Your task to perform on an android device: Open display settings Image 0: 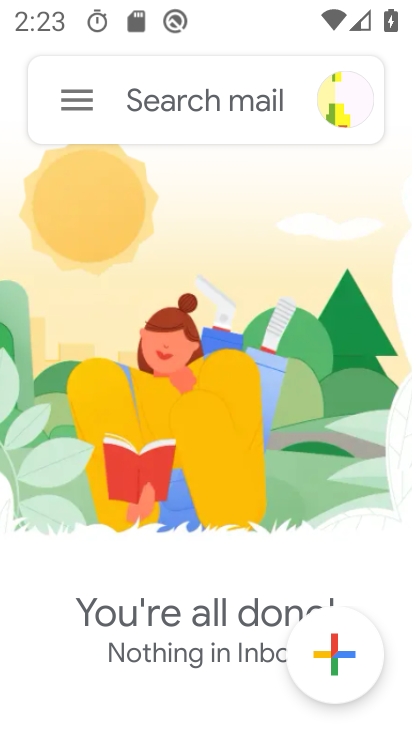
Step 0: press home button
Your task to perform on an android device: Open display settings Image 1: 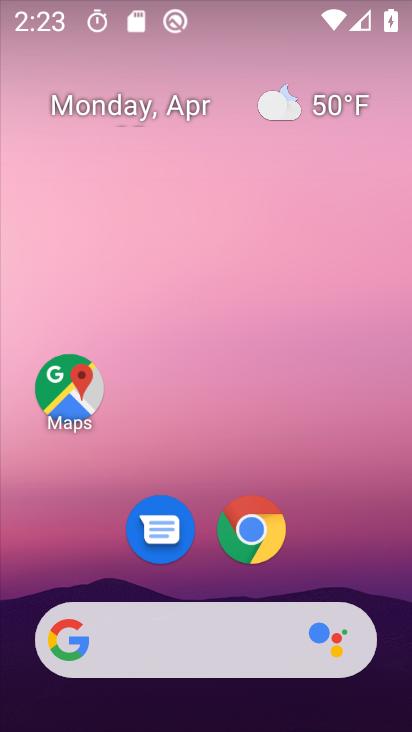
Step 1: click (375, 171)
Your task to perform on an android device: Open display settings Image 2: 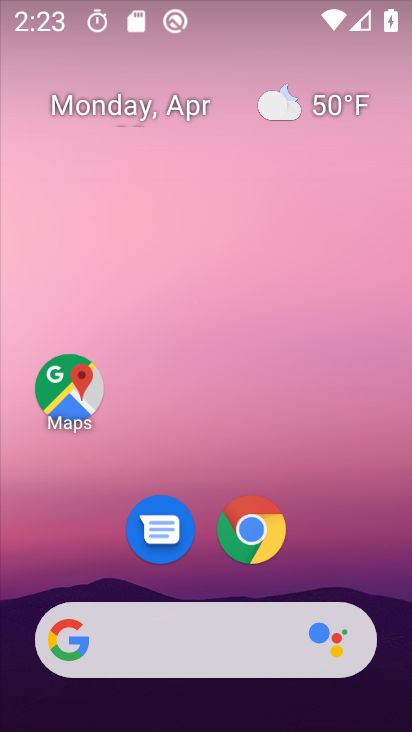
Step 2: drag from (385, 306) to (385, 148)
Your task to perform on an android device: Open display settings Image 3: 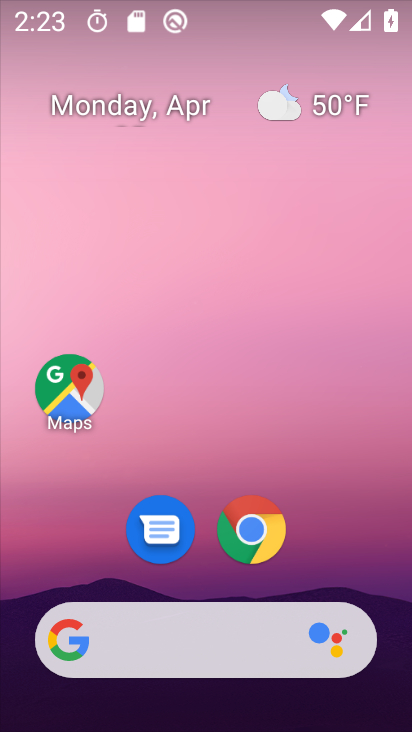
Step 3: drag from (403, 635) to (329, 90)
Your task to perform on an android device: Open display settings Image 4: 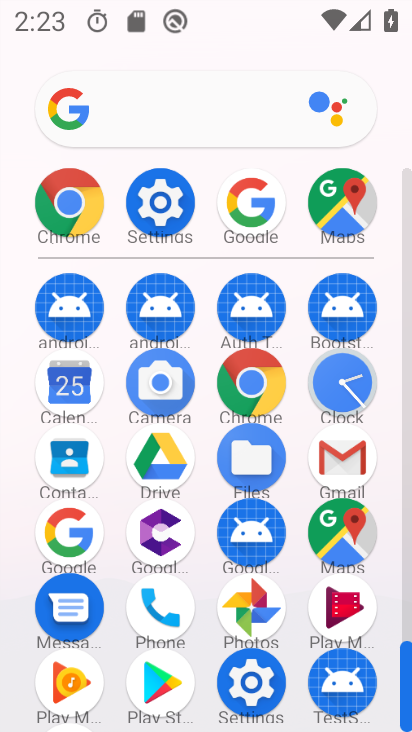
Step 4: click (155, 206)
Your task to perform on an android device: Open display settings Image 5: 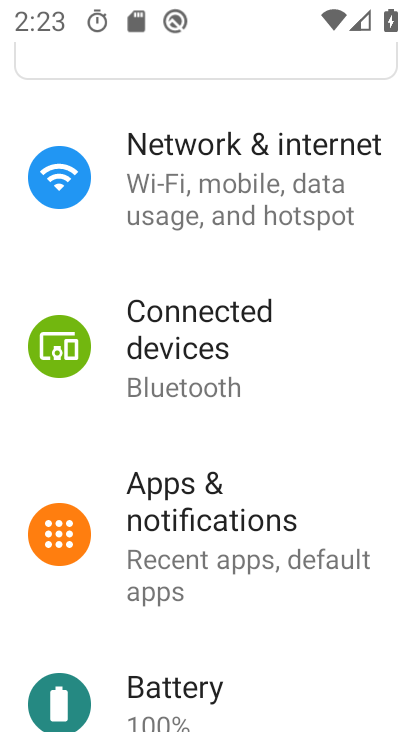
Step 5: drag from (341, 696) to (314, 289)
Your task to perform on an android device: Open display settings Image 6: 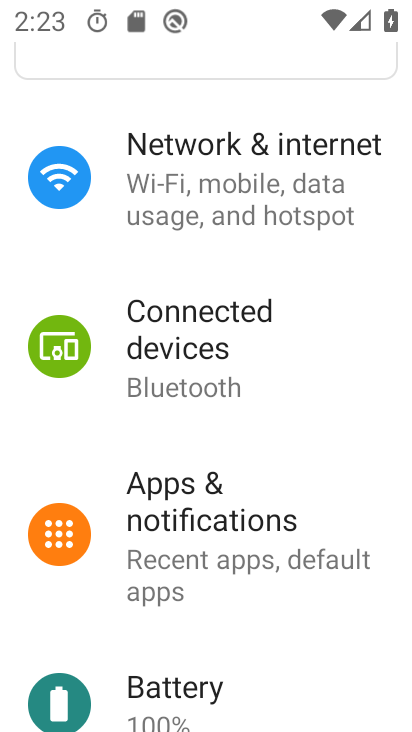
Step 6: drag from (324, 379) to (330, 266)
Your task to perform on an android device: Open display settings Image 7: 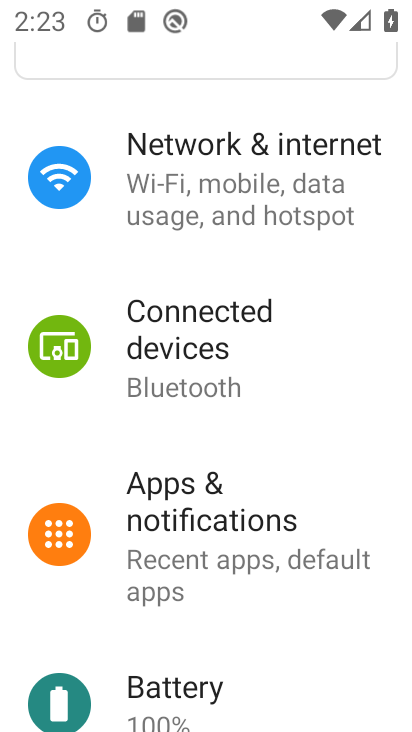
Step 7: drag from (325, 630) to (328, 302)
Your task to perform on an android device: Open display settings Image 8: 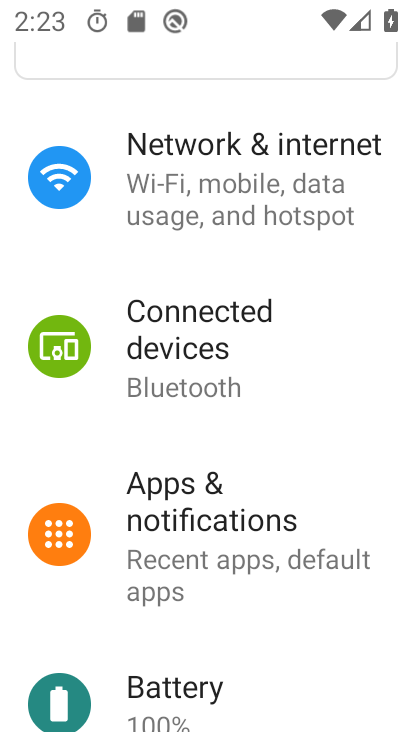
Step 8: drag from (386, 343) to (388, 289)
Your task to perform on an android device: Open display settings Image 9: 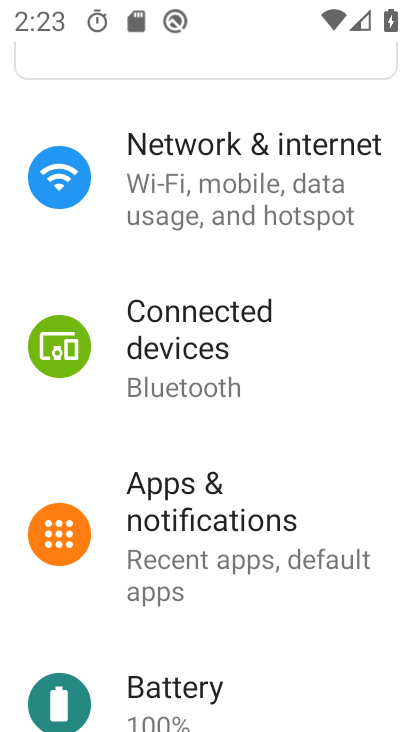
Step 9: drag from (342, 703) to (313, 190)
Your task to perform on an android device: Open display settings Image 10: 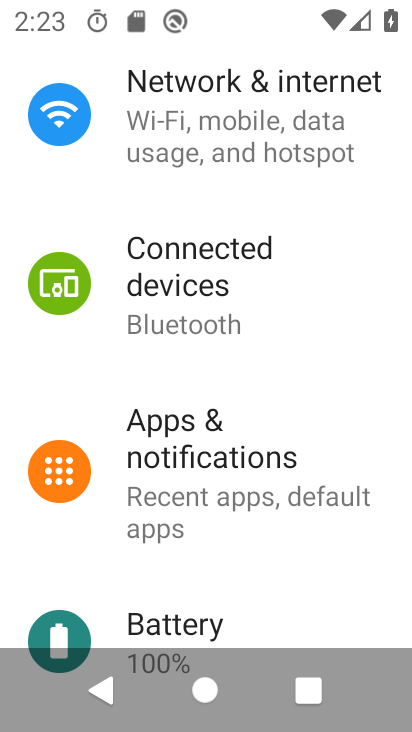
Step 10: drag from (332, 496) to (344, 78)
Your task to perform on an android device: Open display settings Image 11: 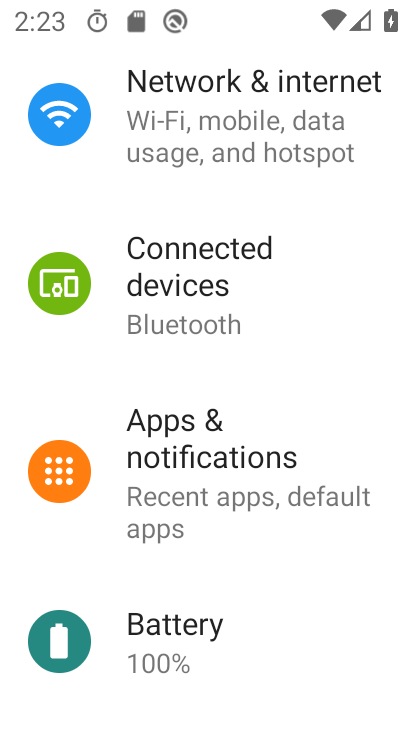
Step 11: drag from (311, 376) to (310, 314)
Your task to perform on an android device: Open display settings Image 12: 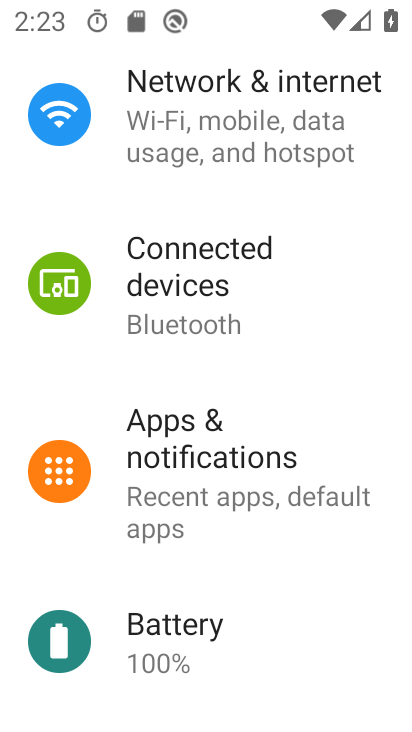
Step 12: drag from (340, 575) to (310, 323)
Your task to perform on an android device: Open display settings Image 13: 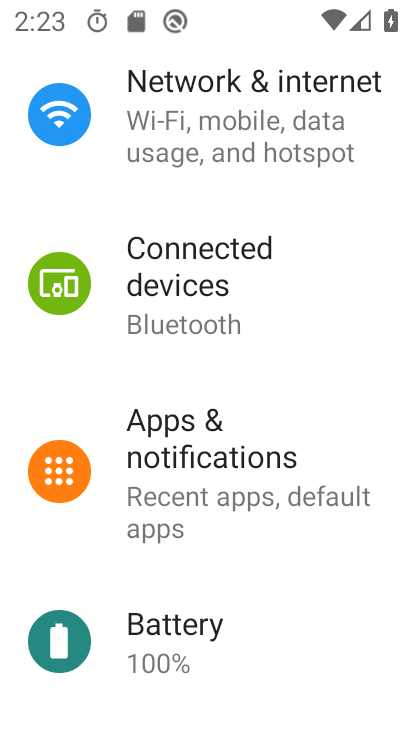
Step 13: drag from (327, 434) to (327, 301)
Your task to perform on an android device: Open display settings Image 14: 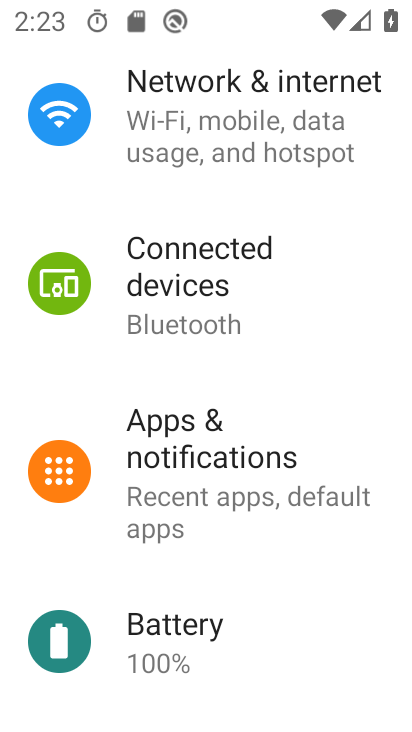
Step 14: click (324, 240)
Your task to perform on an android device: Open display settings Image 15: 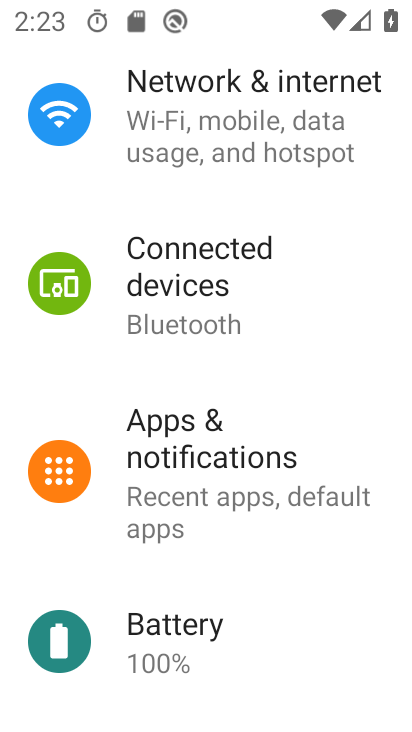
Step 15: drag from (352, 667) to (356, 250)
Your task to perform on an android device: Open display settings Image 16: 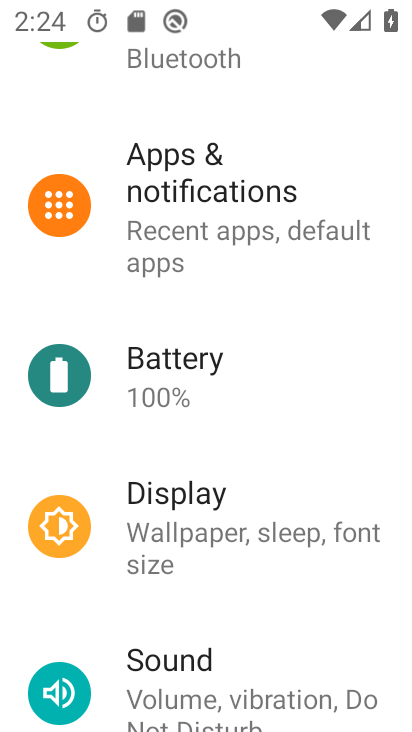
Step 16: drag from (311, 665) to (334, 261)
Your task to perform on an android device: Open display settings Image 17: 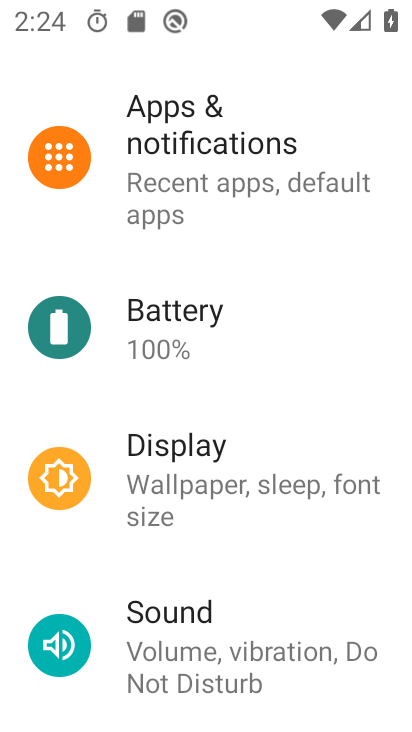
Step 17: click (157, 465)
Your task to perform on an android device: Open display settings Image 18: 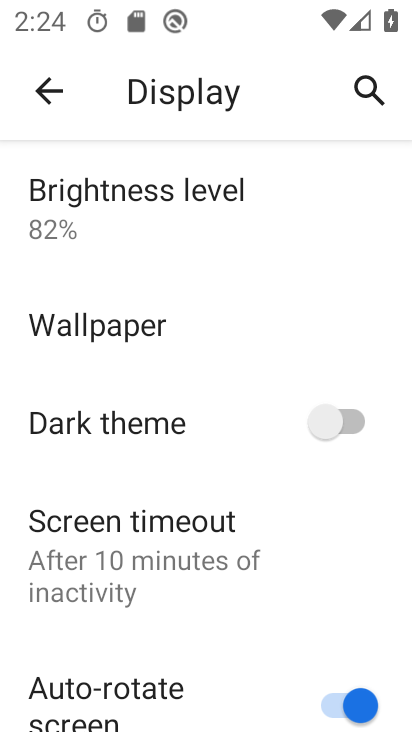
Step 18: task complete